Your task to perform on an android device: Show me productivity apps on the Play Store Image 0: 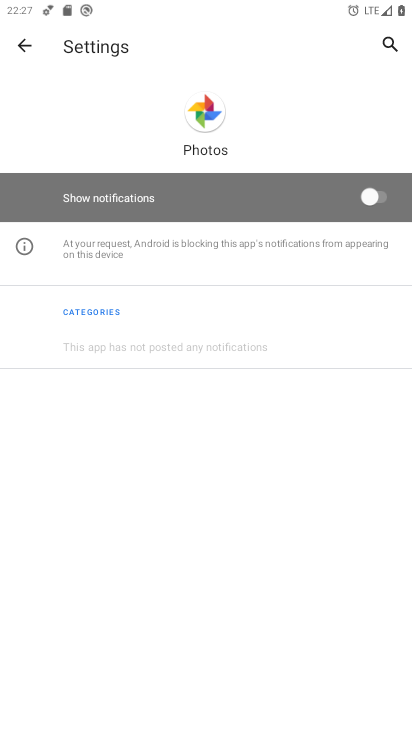
Step 0: press home button
Your task to perform on an android device: Show me productivity apps on the Play Store Image 1: 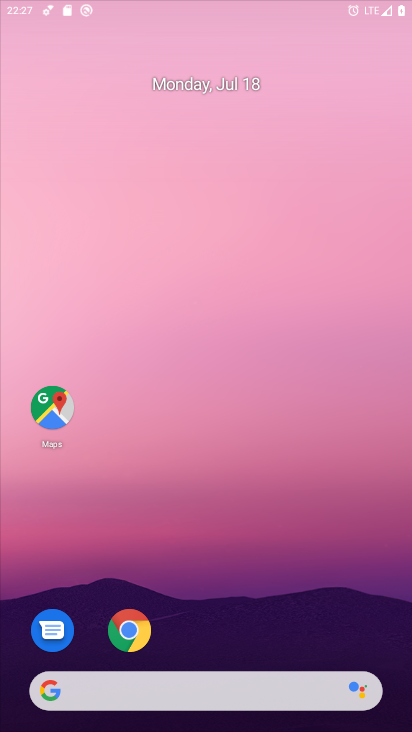
Step 1: drag from (205, 449) to (203, 286)
Your task to perform on an android device: Show me productivity apps on the Play Store Image 2: 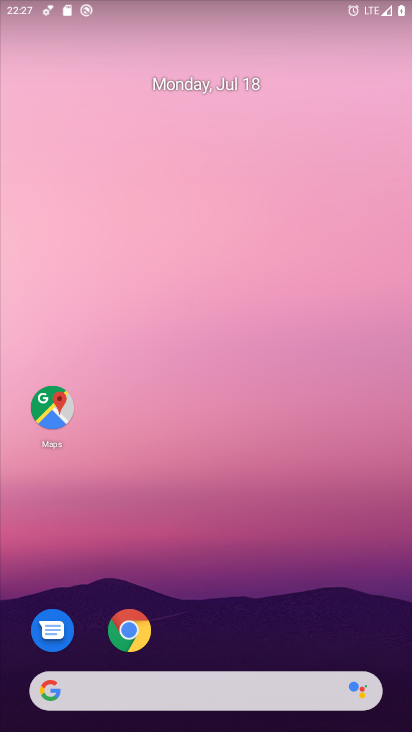
Step 2: drag from (177, 651) to (204, 6)
Your task to perform on an android device: Show me productivity apps on the Play Store Image 3: 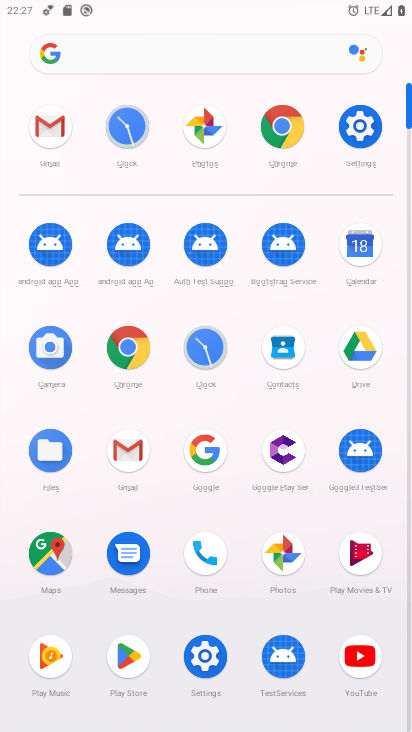
Step 3: click (124, 663)
Your task to perform on an android device: Show me productivity apps on the Play Store Image 4: 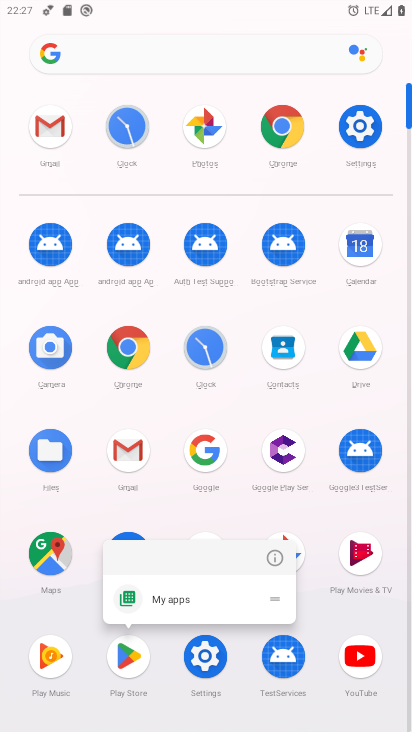
Step 4: click (124, 663)
Your task to perform on an android device: Show me productivity apps on the Play Store Image 5: 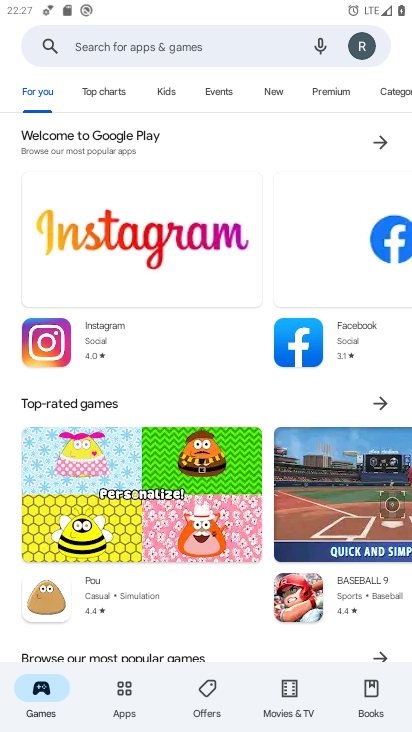
Step 5: click (127, 679)
Your task to perform on an android device: Show me productivity apps on the Play Store Image 6: 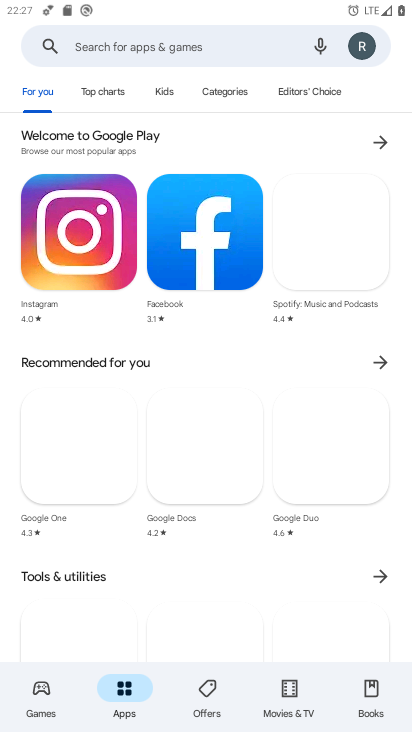
Step 6: task complete